Your task to perform on an android device: Open accessibility settings Image 0: 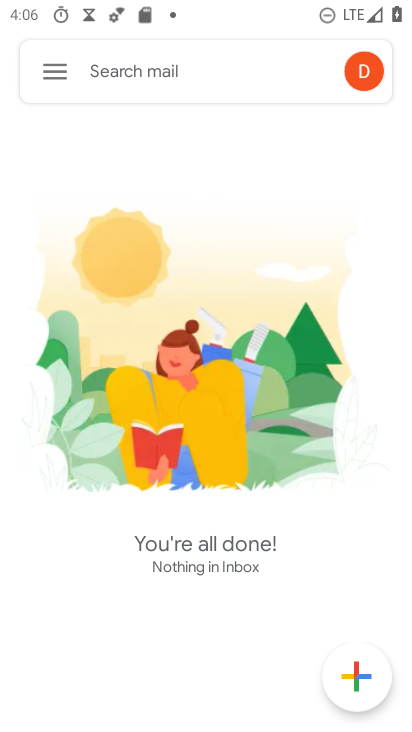
Step 0: press home button
Your task to perform on an android device: Open accessibility settings Image 1: 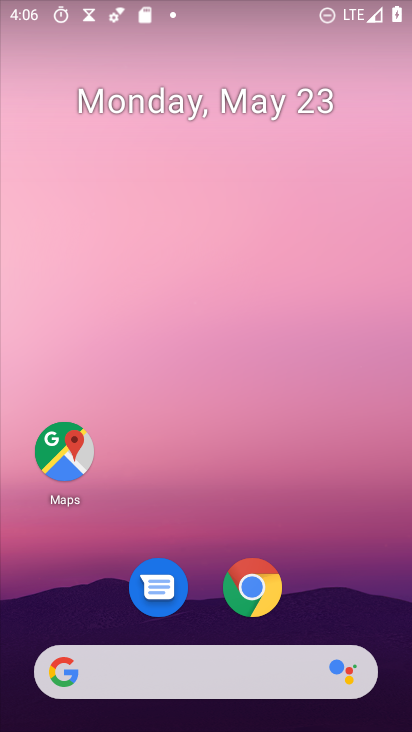
Step 1: drag from (216, 595) to (183, 1)
Your task to perform on an android device: Open accessibility settings Image 2: 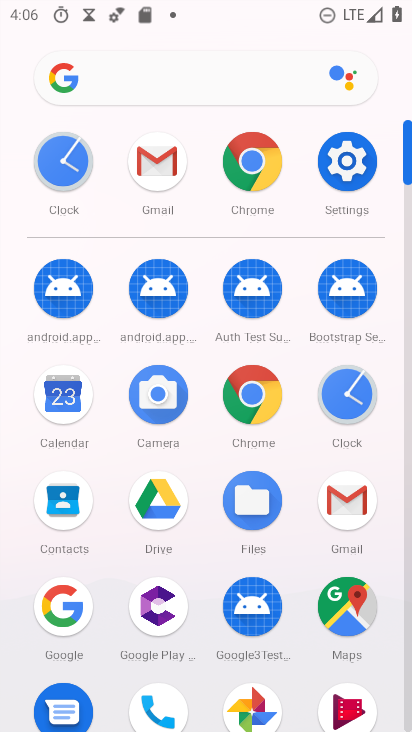
Step 2: click (344, 174)
Your task to perform on an android device: Open accessibility settings Image 3: 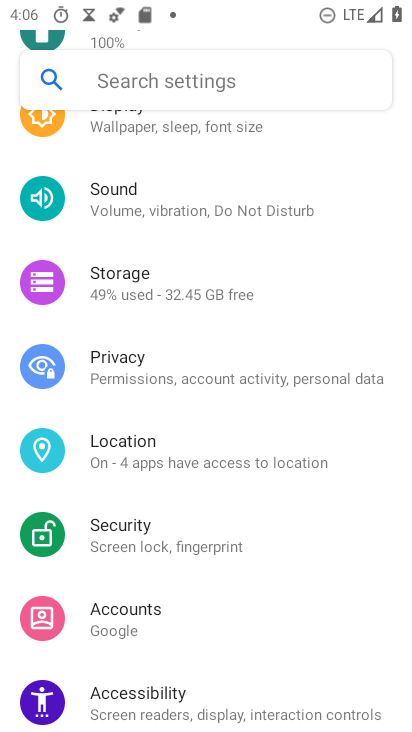
Step 3: click (162, 702)
Your task to perform on an android device: Open accessibility settings Image 4: 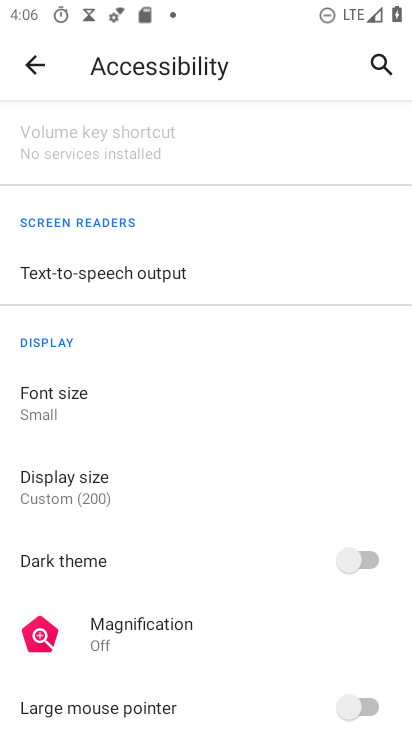
Step 4: task complete